Your task to perform on an android device: Go to privacy settings Image 0: 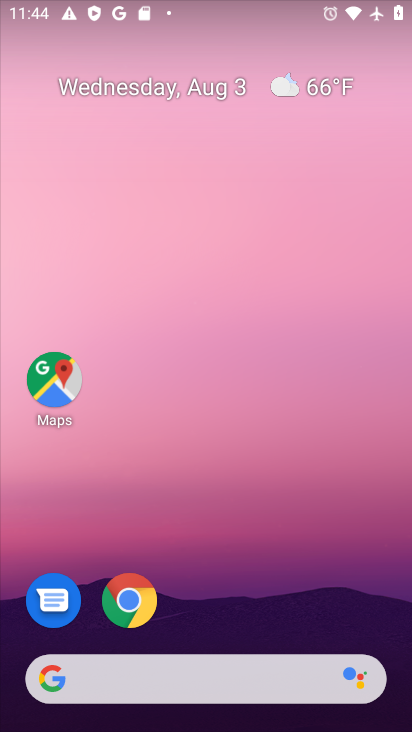
Step 0: drag from (252, 627) to (224, 27)
Your task to perform on an android device: Go to privacy settings Image 1: 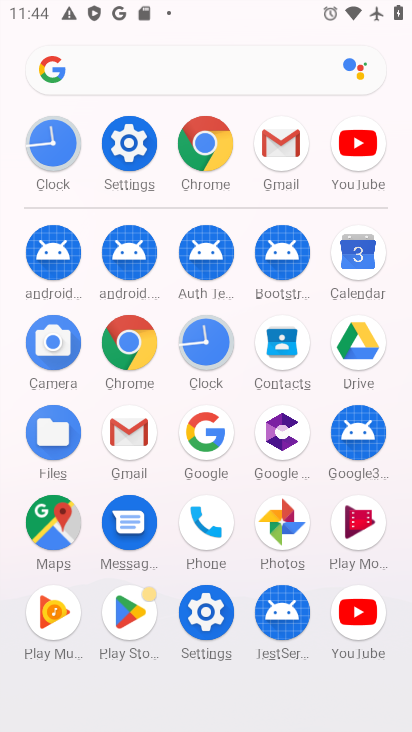
Step 1: click (140, 136)
Your task to perform on an android device: Go to privacy settings Image 2: 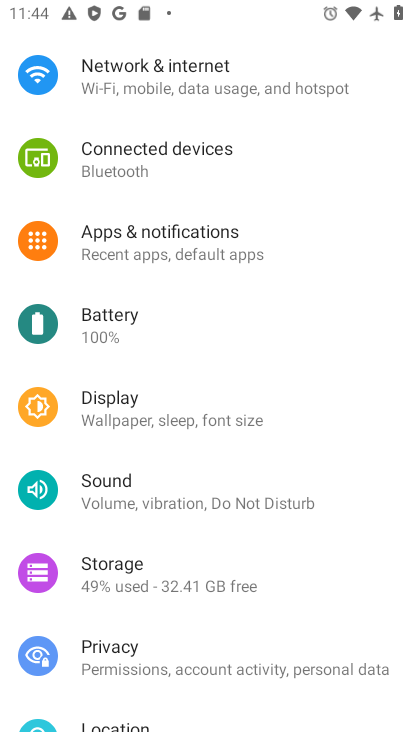
Step 2: click (131, 644)
Your task to perform on an android device: Go to privacy settings Image 3: 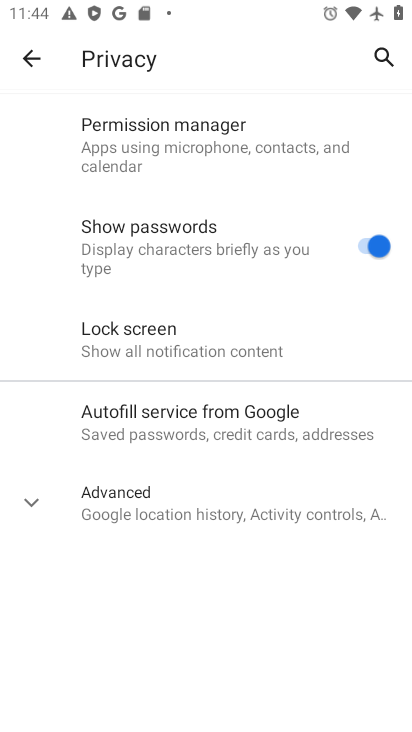
Step 3: task complete